Your task to perform on an android device: toggle sleep mode Image 0: 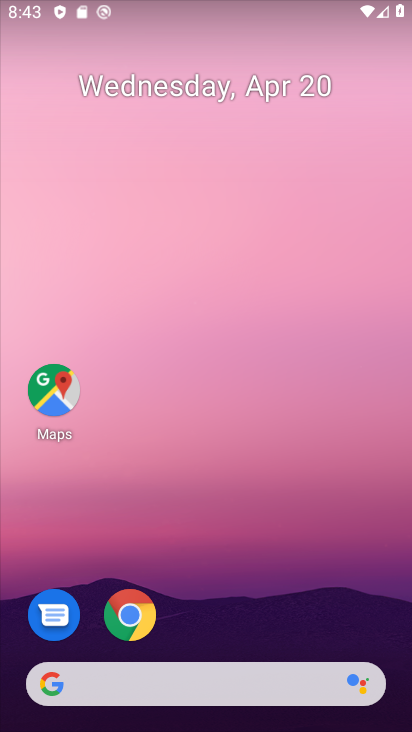
Step 0: drag from (184, 436) to (296, 223)
Your task to perform on an android device: toggle sleep mode Image 1: 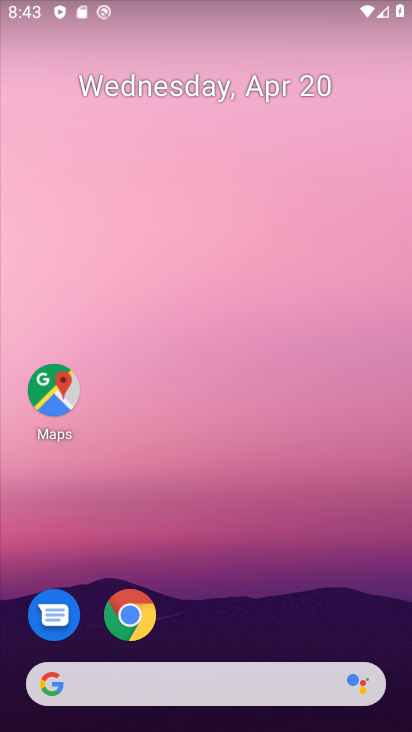
Step 1: drag from (77, 443) to (269, 141)
Your task to perform on an android device: toggle sleep mode Image 2: 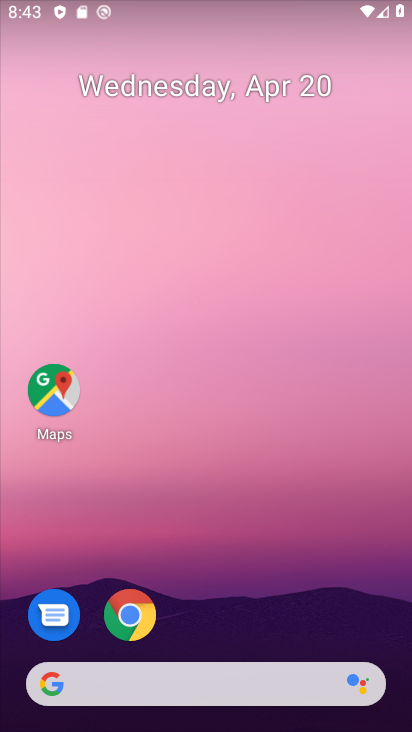
Step 2: drag from (78, 583) to (299, 260)
Your task to perform on an android device: toggle sleep mode Image 3: 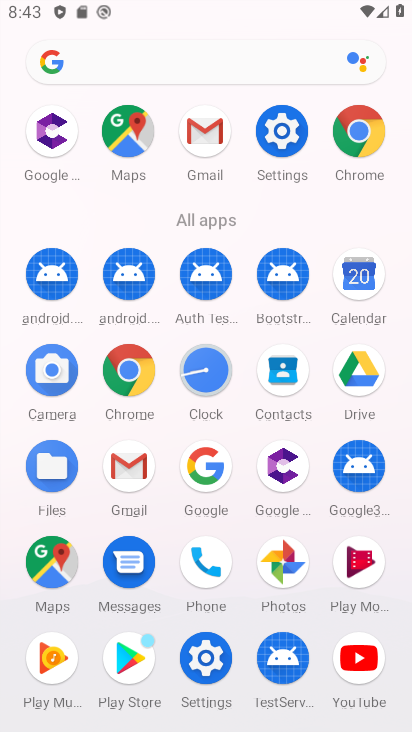
Step 3: click (276, 146)
Your task to perform on an android device: toggle sleep mode Image 4: 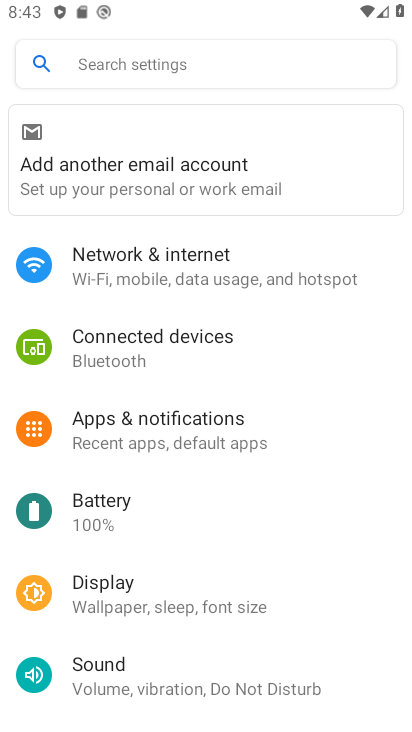
Step 4: task complete